Your task to perform on an android device: Go to sound settings Image 0: 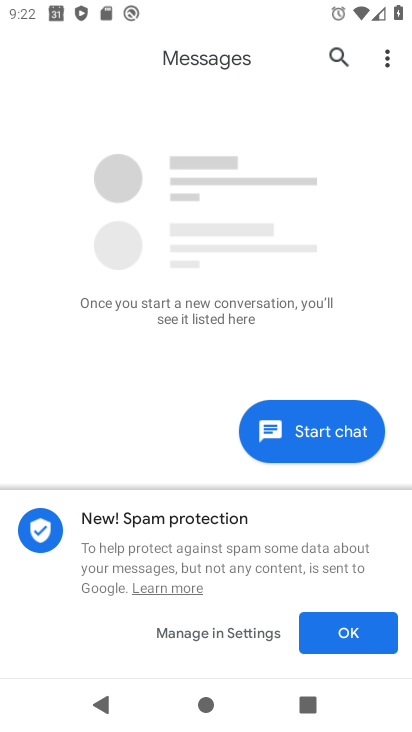
Step 0: press home button
Your task to perform on an android device: Go to sound settings Image 1: 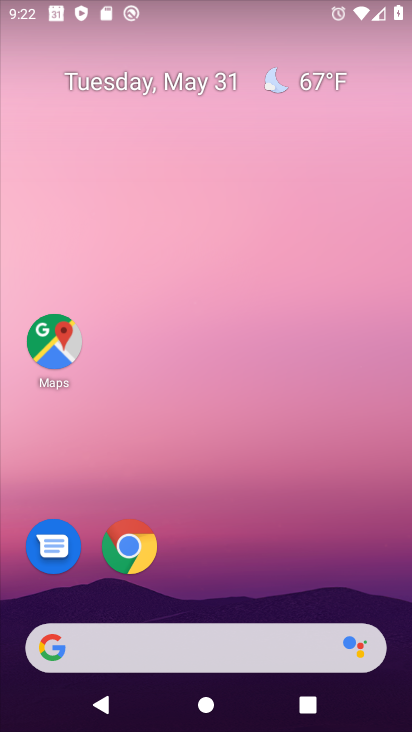
Step 1: drag from (226, 600) to (299, 108)
Your task to perform on an android device: Go to sound settings Image 2: 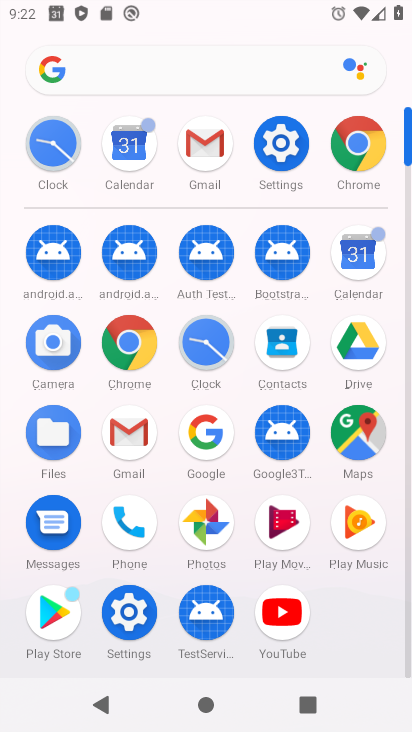
Step 2: click (284, 155)
Your task to perform on an android device: Go to sound settings Image 3: 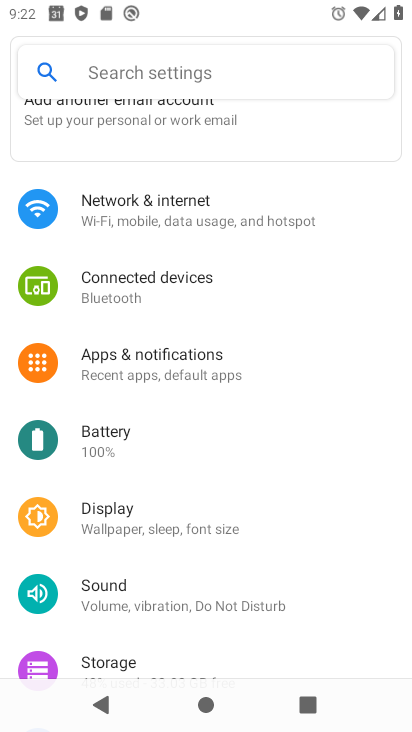
Step 3: click (120, 606)
Your task to perform on an android device: Go to sound settings Image 4: 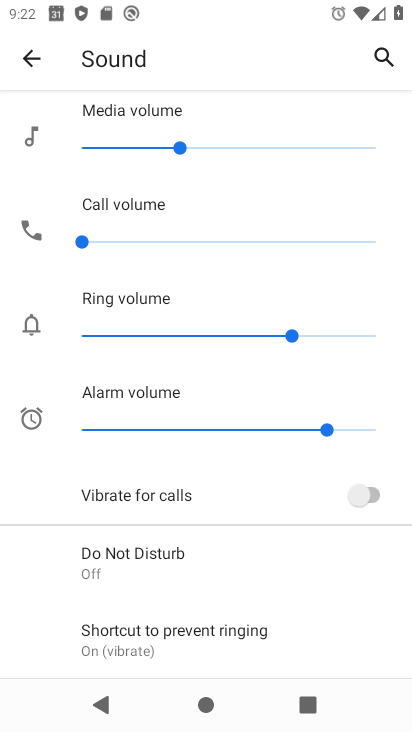
Step 4: task complete